Your task to perform on an android device: Open Chrome and go to settings Image 0: 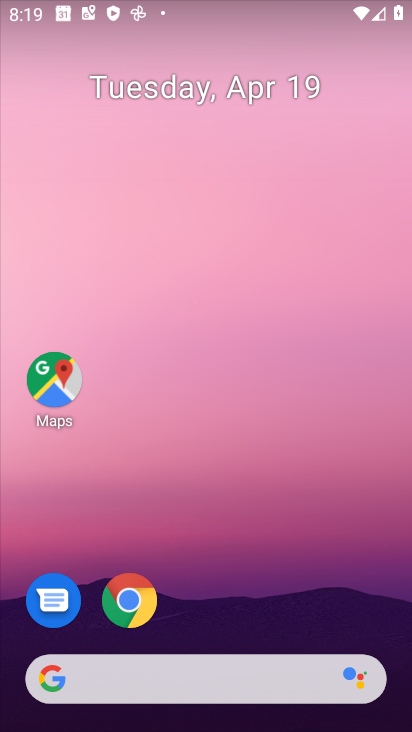
Step 0: drag from (311, 610) to (199, 40)
Your task to perform on an android device: Open Chrome and go to settings Image 1: 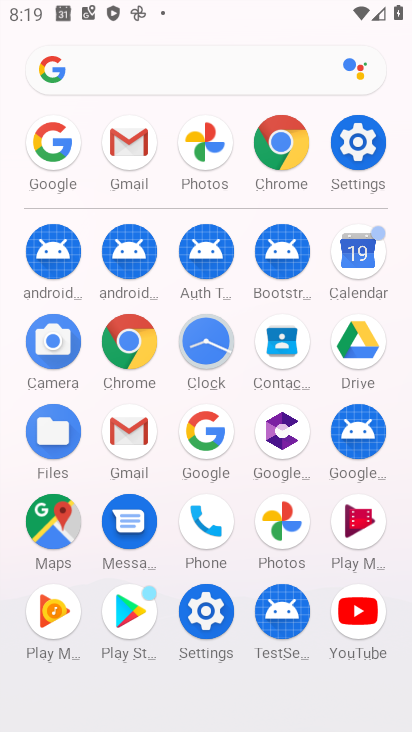
Step 1: click (274, 145)
Your task to perform on an android device: Open Chrome and go to settings Image 2: 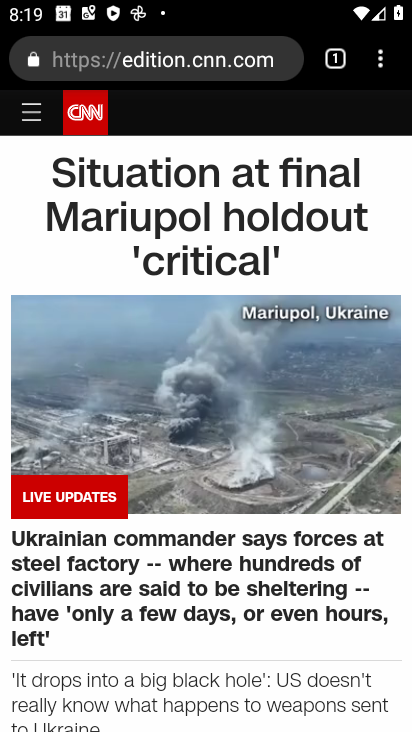
Step 2: press back button
Your task to perform on an android device: Open Chrome and go to settings Image 3: 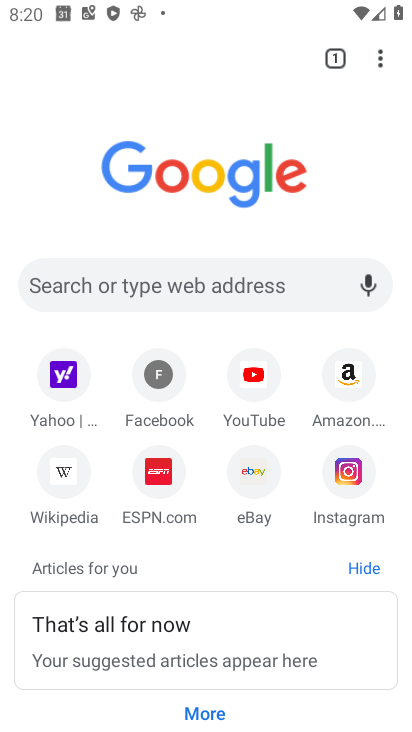
Step 3: click (377, 51)
Your task to perform on an android device: Open Chrome and go to settings Image 4: 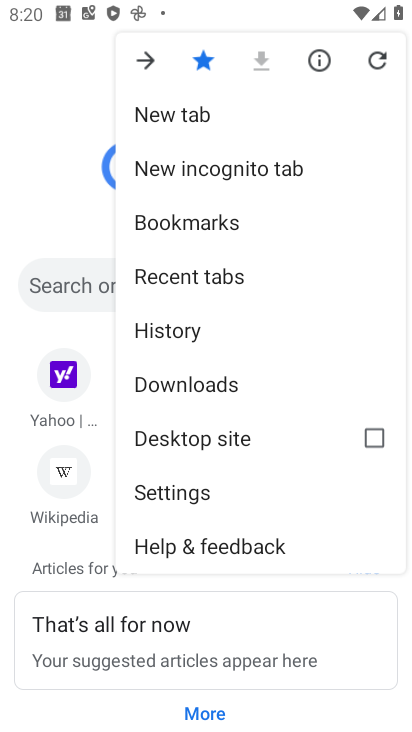
Step 4: click (212, 495)
Your task to perform on an android device: Open Chrome and go to settings Image 5: 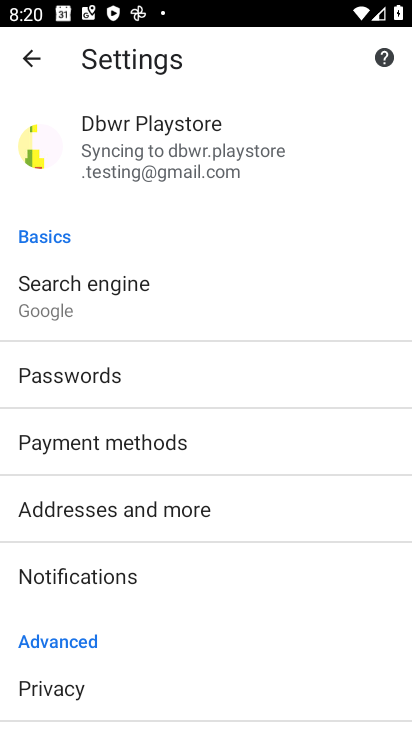
Step 5: task complete